Your task to perform on an android device: empty trash in google photos Image 0: 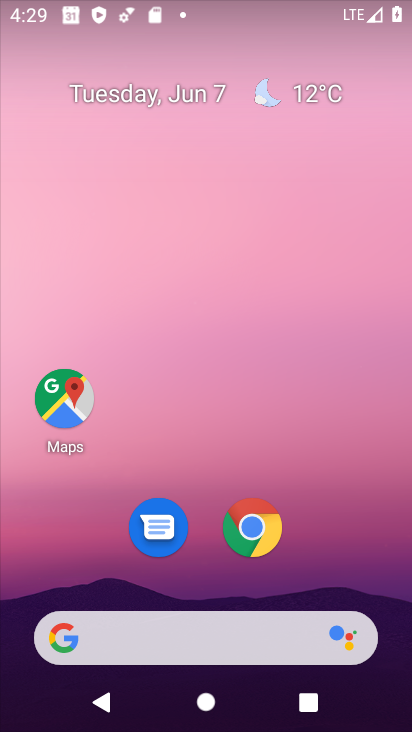
Step 0: drag from (331, 565) to (277, 120)
Your task to perform on an android device: empty trash in google photos Image 1: 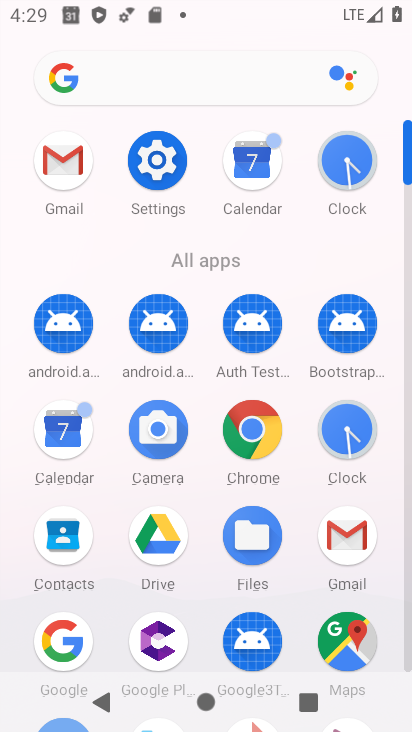
Step 1: drag from (296, 276) to (304, 126)
Your task to perform on an android device: empty trash in google photos Image 2: 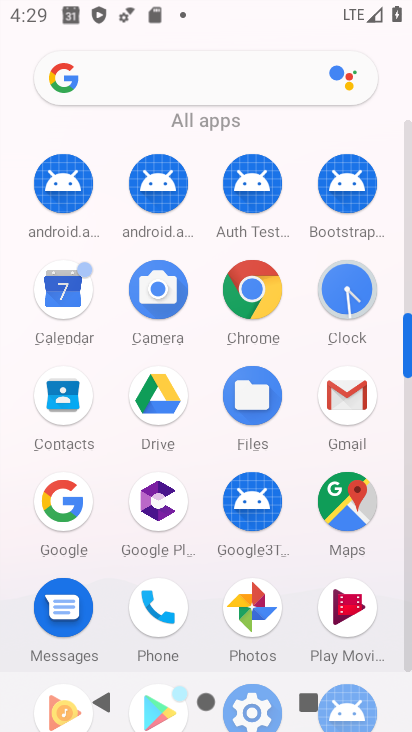
Step 2: click (252, 604)
Your task to perform on an android device: empty trash in google photos Image 3: 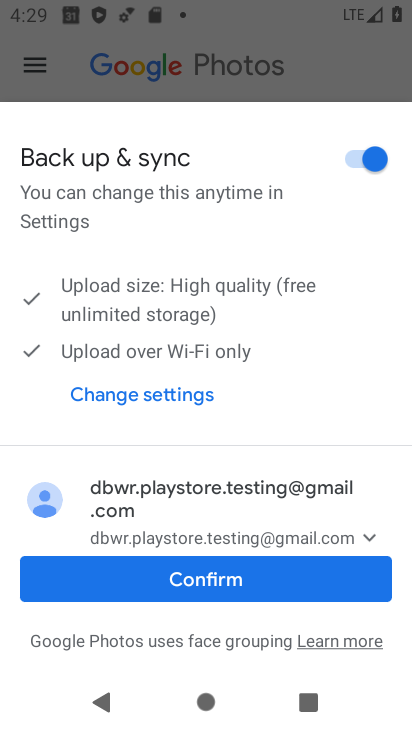
Step 3: click (185, 573)
Your task to perform on an android device: empty trash in google photos Image 4: 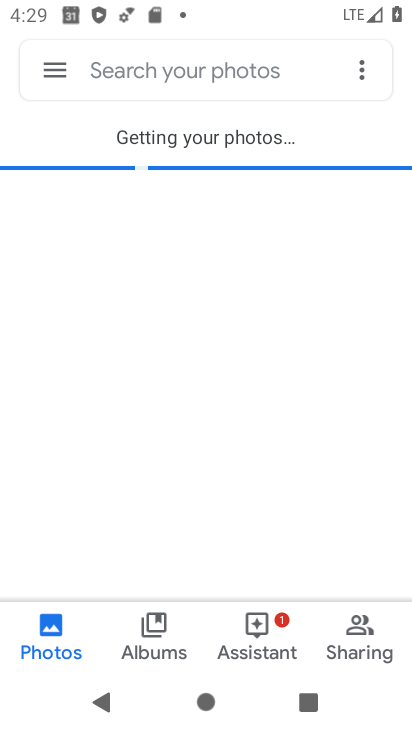
Step 4: click (52, 71)
Your task to perform on an android device: empty trash in google photos Image 5: 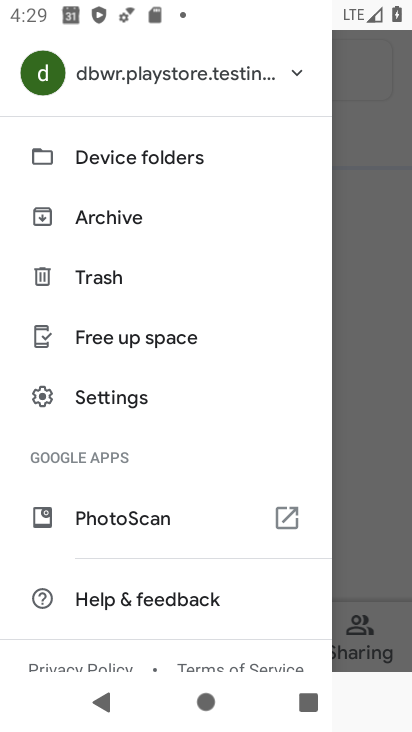
Step 5: click (88, 274)
Your task to perform on an android device: empty trash in google photos Image 6: 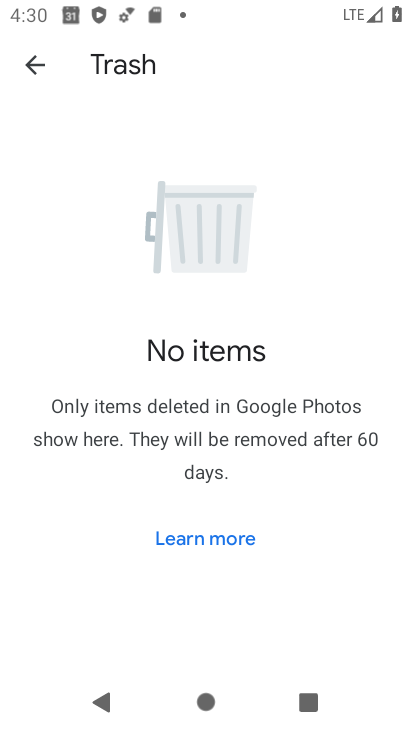
Step 6: task complete